Your task to perform on an android device: Play the last video I watched on Youtube Image 0: 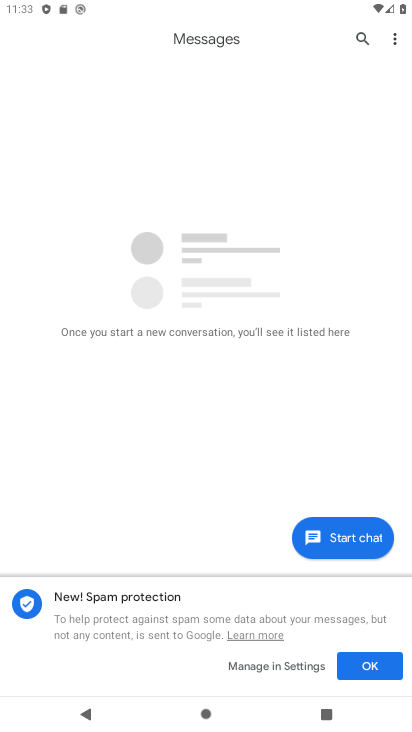
Step 0: press home button
Your task to perform on an android device: Play the last video I watched on Youtube Image 1: 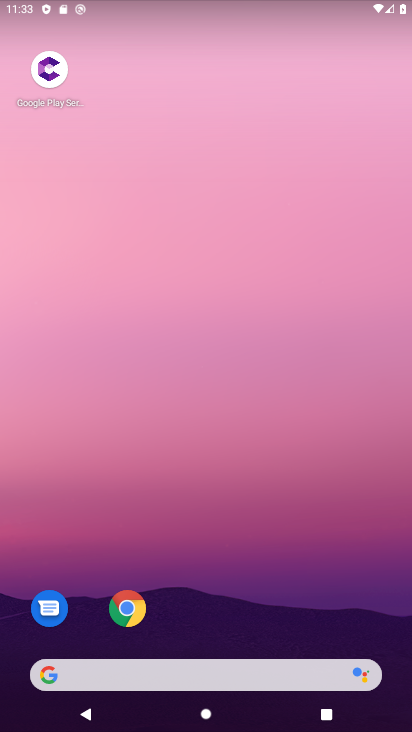
Step 1: drag from (195, 601) to (214, 58)
Your task to perform on an android device: Play the last video I watched on Youtube Image 2: 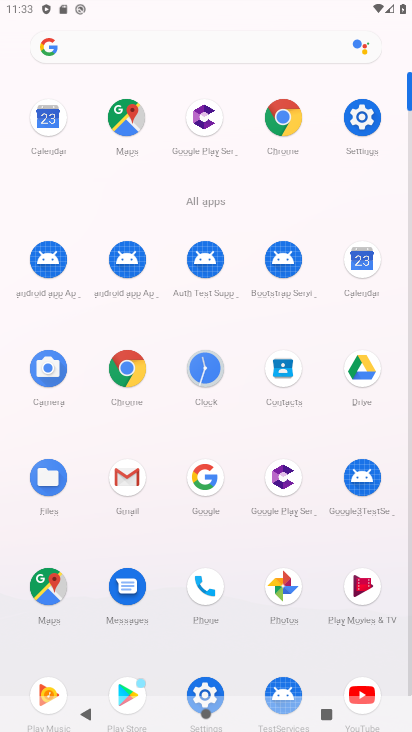
Step 2: drag from (238, 654) to (260, 103)
Your task to perform on an android device: Play the last video I watched on Youtube Image 3: 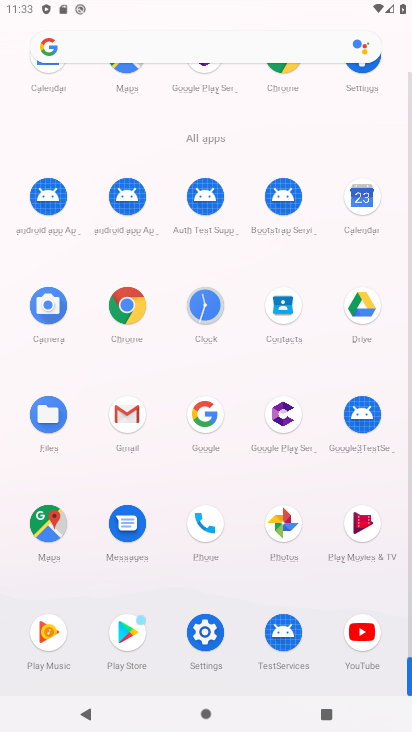
Step 3: click (358, 624)
Your task to perform on an android device: Play the last video I watched on Youtube Image 4: 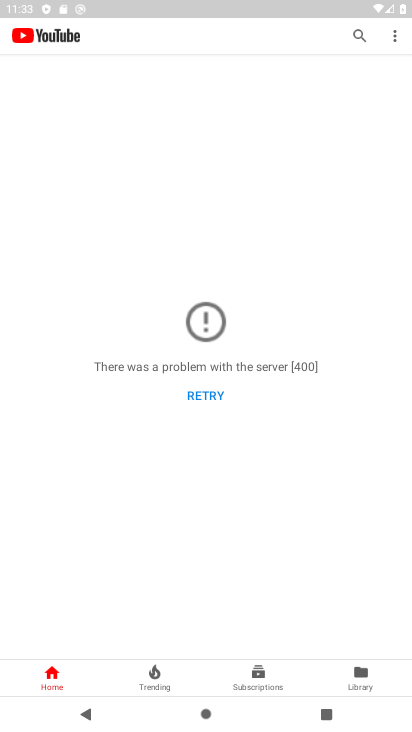
Step 4: click (356, 672)
Your task to perform on an android device: Play the last video I watched on Youtube Image 5: 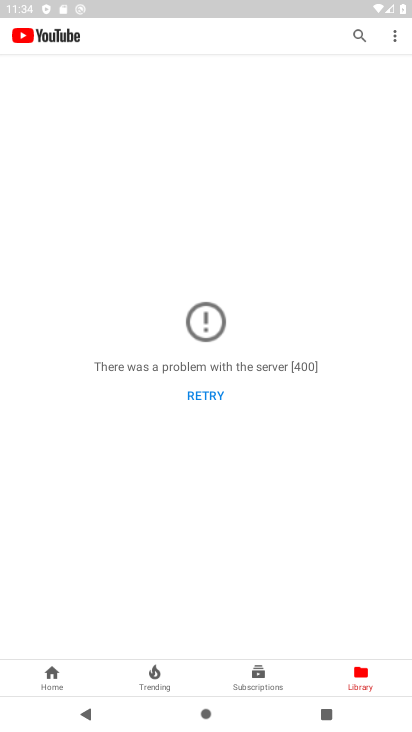
Step 5: task complete